Your task to perform on an android device: Clear the shopping cart on costco. Search for "macbook" on costco, select the first entry, and add it to the cart. Image 0: 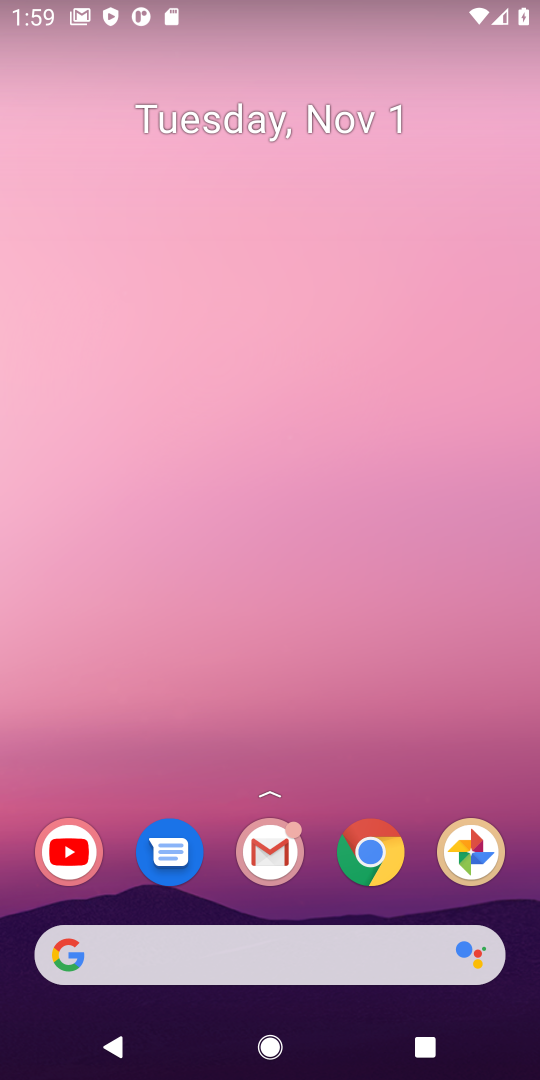
Step 0: click (148, 975)
Your task to perform on an android device: Clear the shopping cart on costco. Search for "macbook" on costco, select the first entry, and add it to the cart. Image 1: 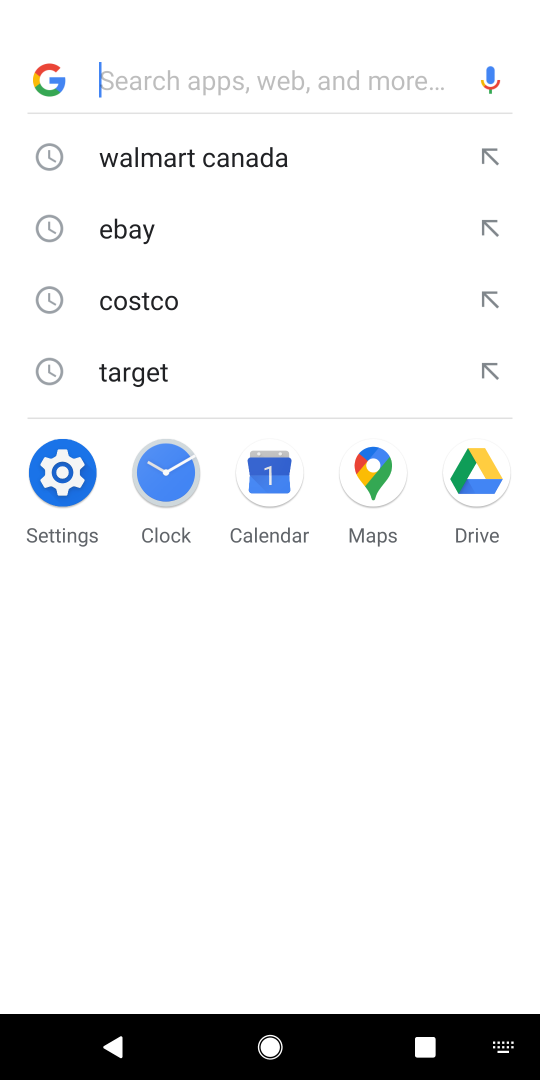
Step 1: type "costco"
Your task to perform on an android device: Clear the shopping cart on costco. Search for "macbook" on costco, select the first entry, and add it to the cart. Image 2: 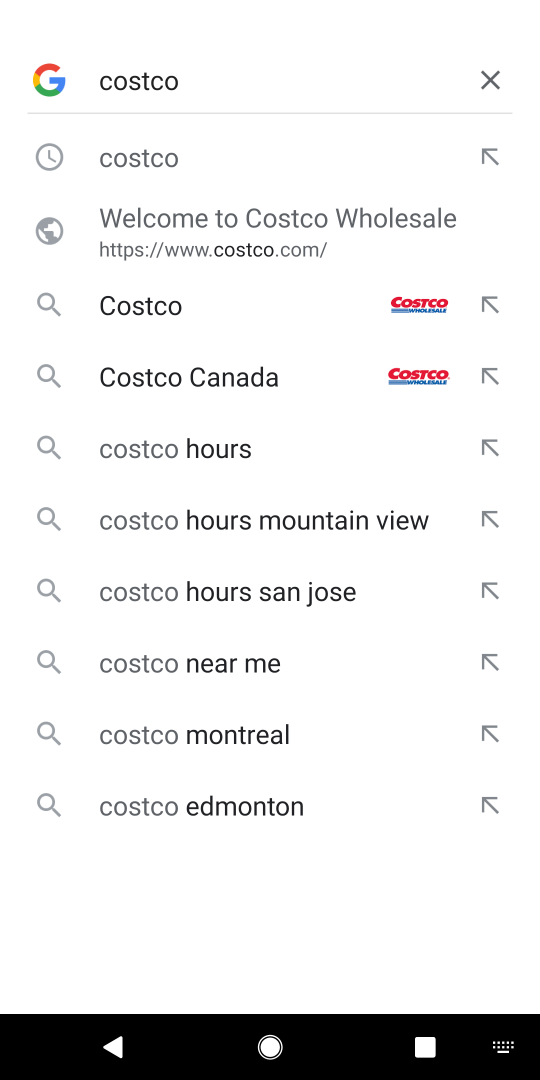
Step 2: type ""
Your task to perform on an android device: Clear the shopping cart on costco. Search for "macbook" on costco, select the first entry, and add it to the cart. Image 3: 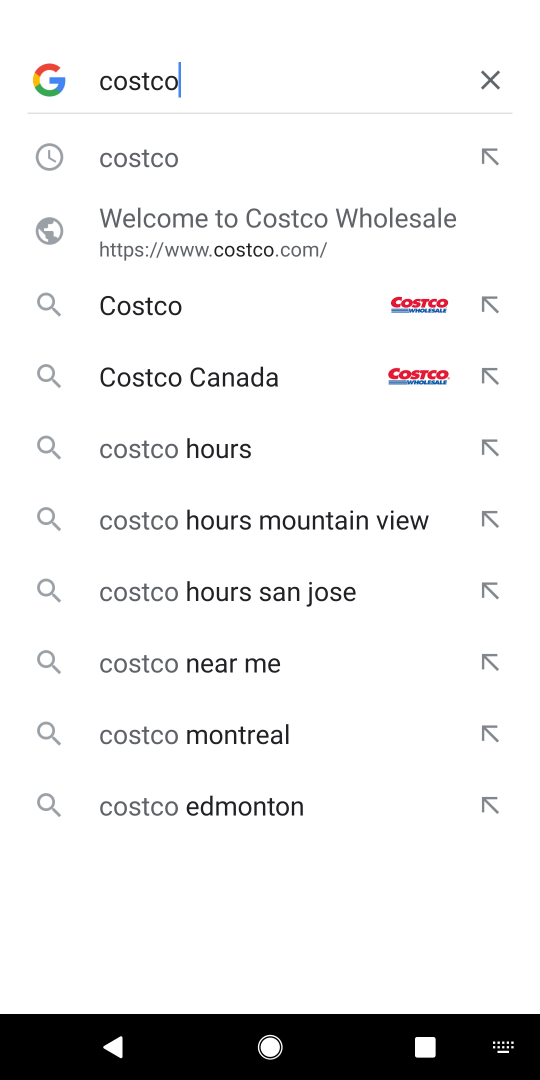
Step 3: press enter
Your task to perform on an android device: Clear the shopping cart on costco. Search for "macbook" on costco, select the first entry, and add it to the cart. Image 4: 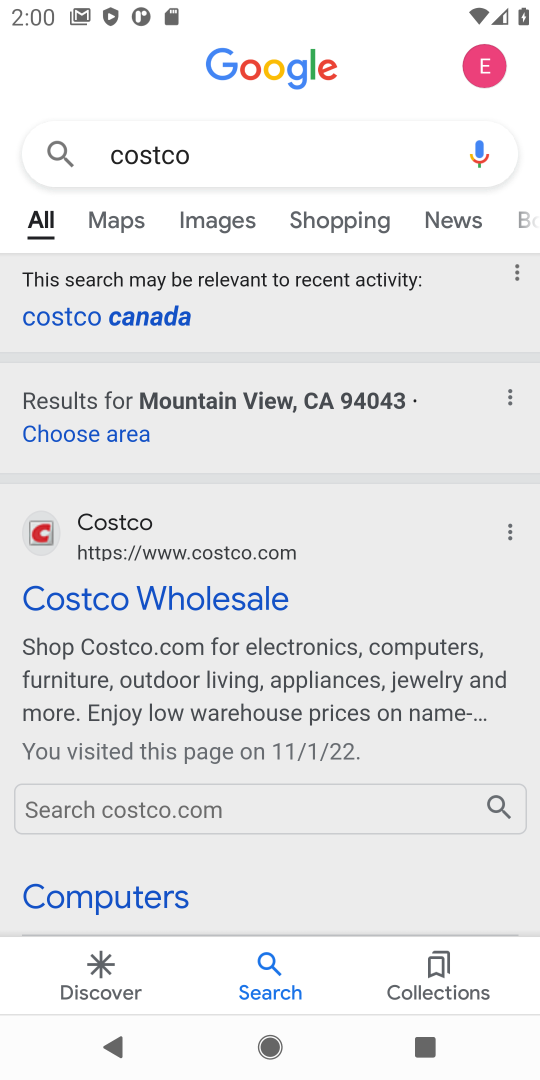
Step 4: click (92, 596)
Your task to perform on an android device: Clear the shopping cart on costco. Search for "macbook" on costco, select the first entry, and add it to the cart. Image 5: 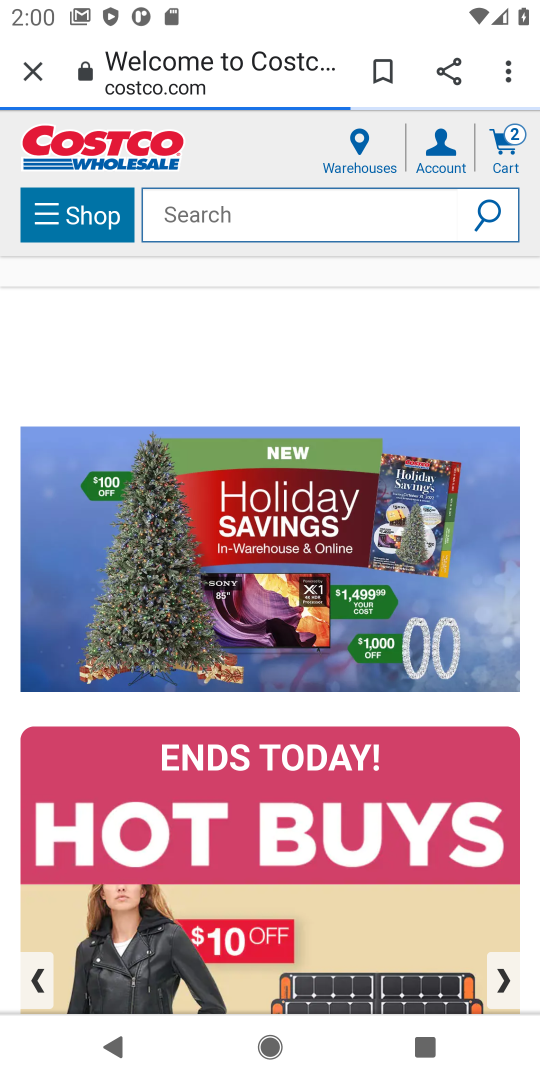
Step 5: click (219, 211)
Your task to perform on an android device: Clear the shopping cart on costco. Search for "macbook" on costco, select the first entry, and add it to the cart. Image 6: 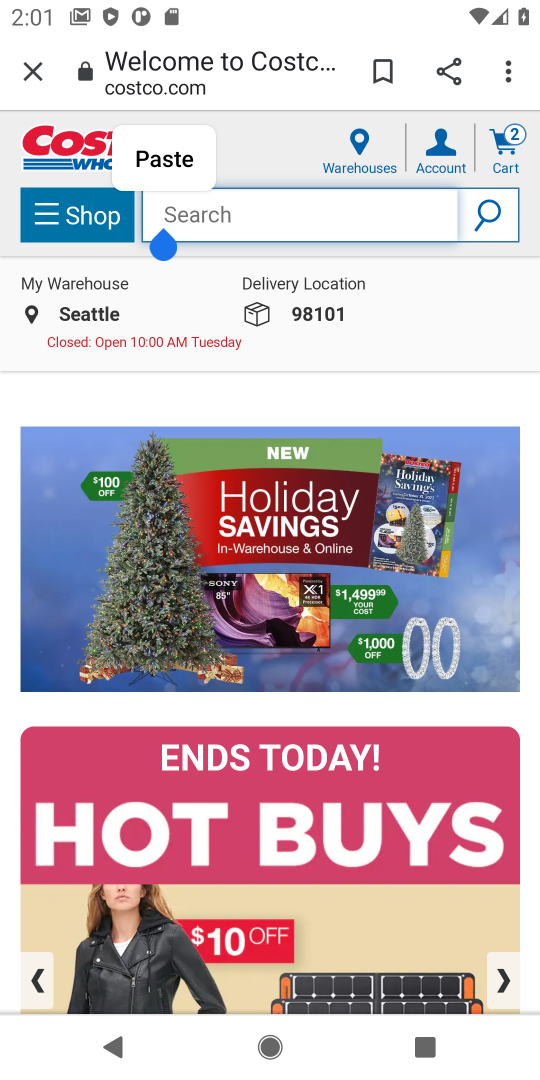
Step 6: type "shopping cart on costco"
Your task to perform on an android device: Clear the shopping cart on costco. Search for "macbook" on costco, select the first entry, and add it to the cart. Image 7: 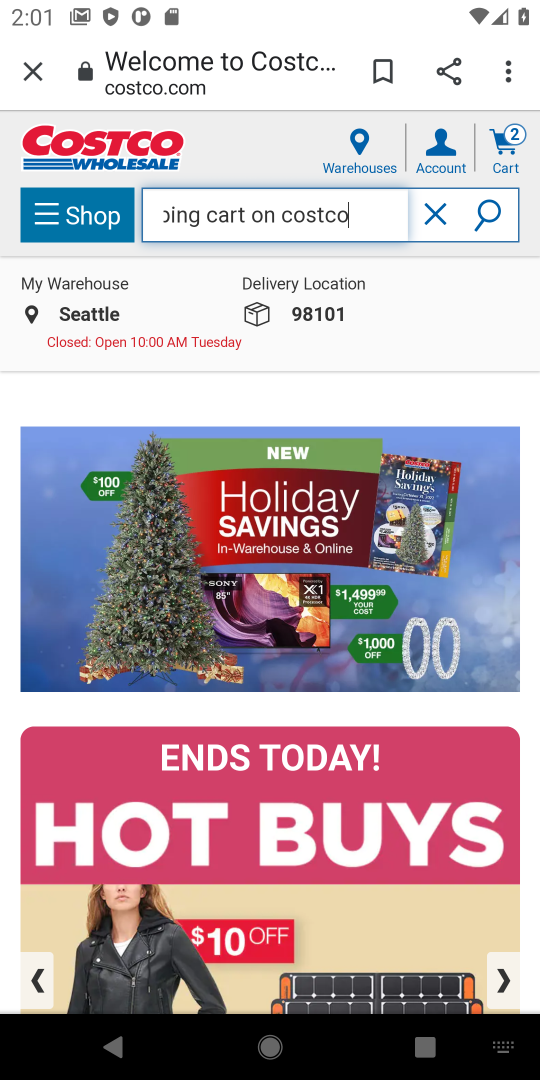
Step 7: type ""
Your task to perform on an android device: Clear the shopping cart on costco. Search for "macbook" on costco, select the first entry, and add it to the cart. Image 8: 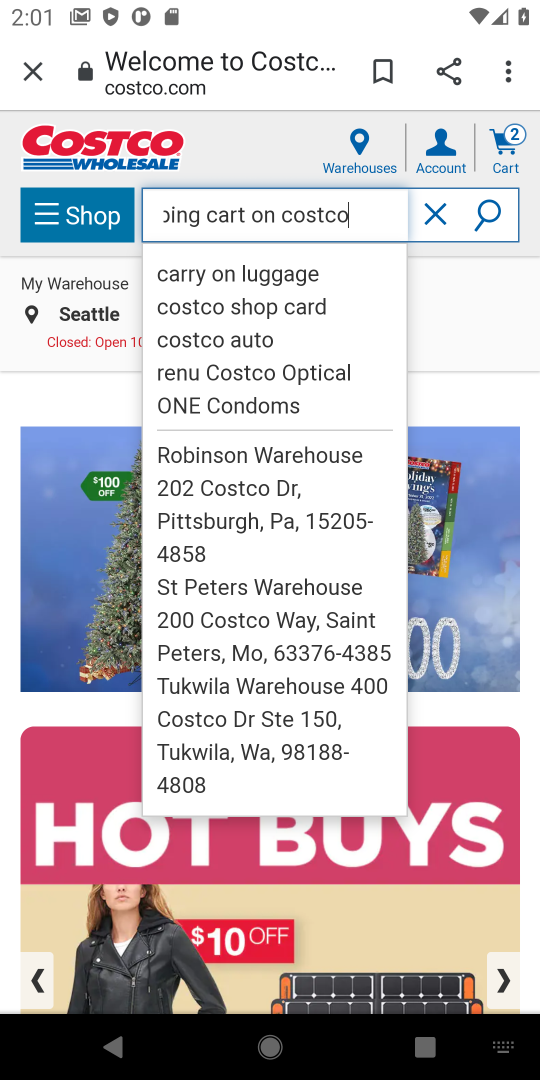
Step 8: press enter
Your task to perform on an android device: Clear the shopping cart on costco. Search for "macbook" on costco, select the first entry, and add it to the cart. Image 9: 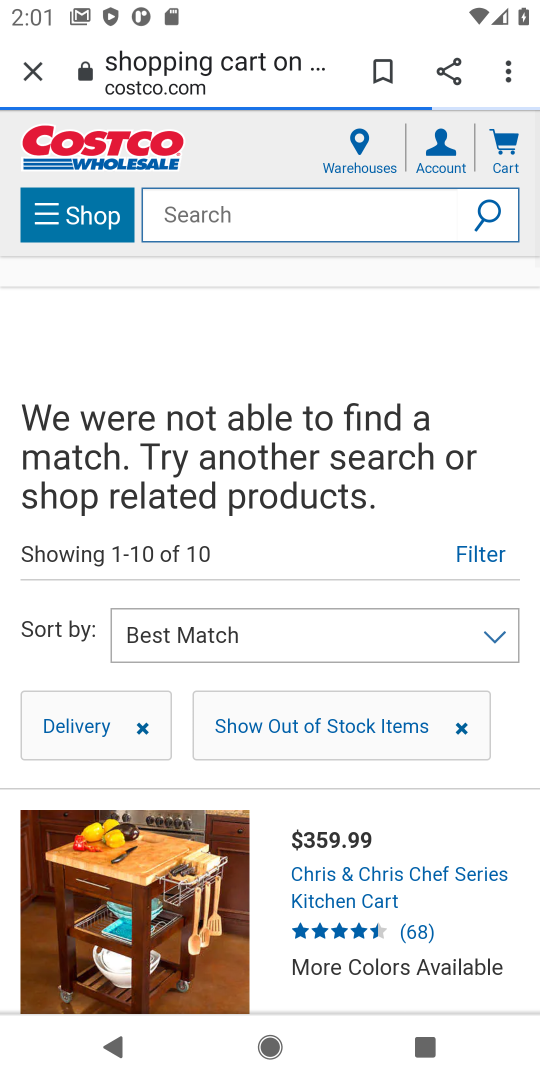
Step 9: press enter
Your task to perform on an android device: Clear the shopping cart on costco. Search for "macbook" on costco, select the first entry, and add it to the cart. Image 10: 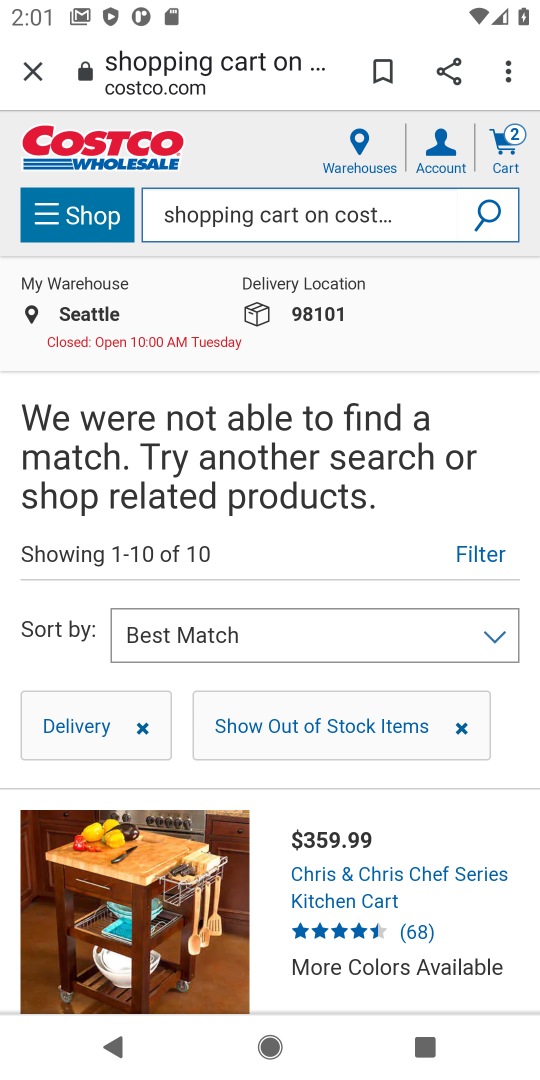
Step 10: type ""
Your task to perform on an android device: Clear the shopping cart on costco. Search for "macbook" on costco, select the first entry, and add it to the cart. Image 11: 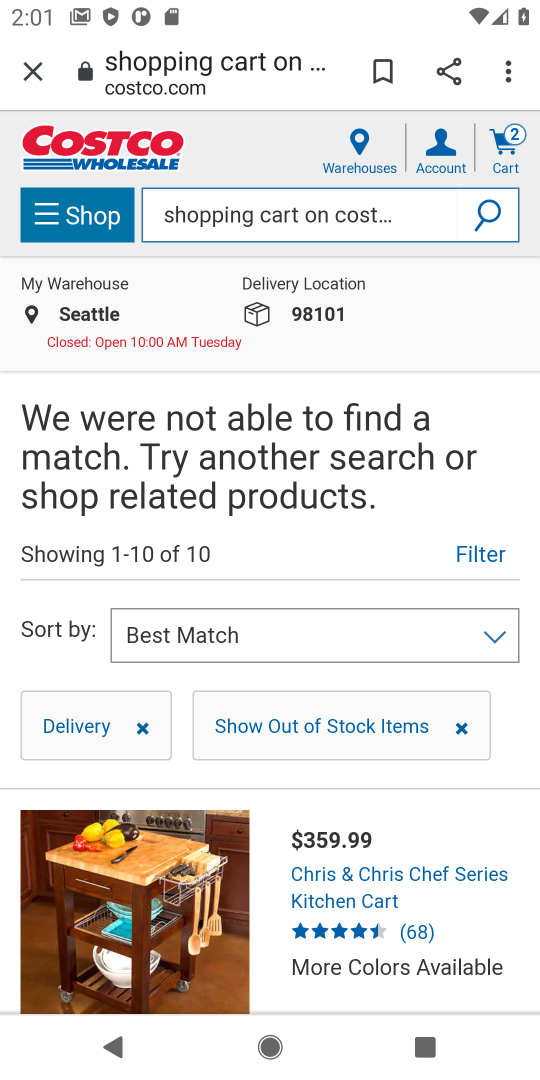
Step 11: task complete